Your task to perform on an android device: turn on showing notifications on the lock screen Image 0: 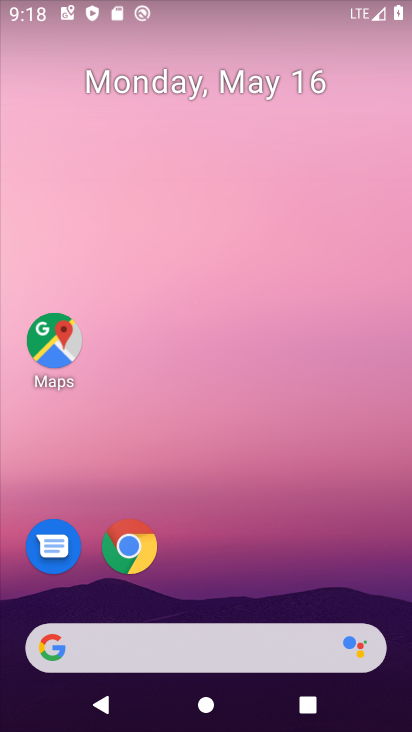
Step 0: drag from (236, 668) to (189, 194)
Your task to perform on an android device: turn on showing notifications on the lock screen Image 1: 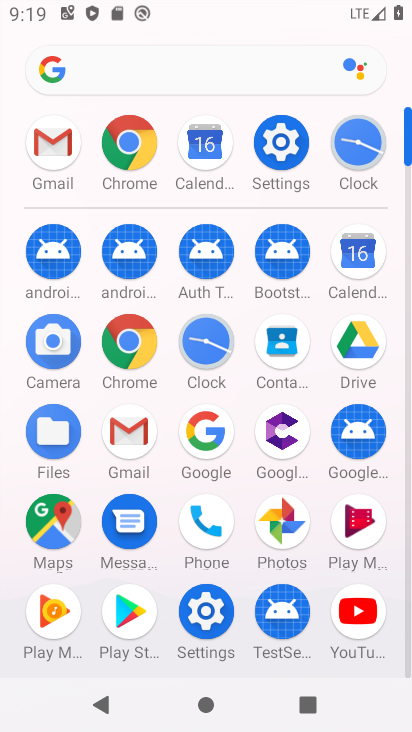
Step 1: click (279, 163)
Your task to perform on an android device: turn on showing notifications on the lock screen Image 2: 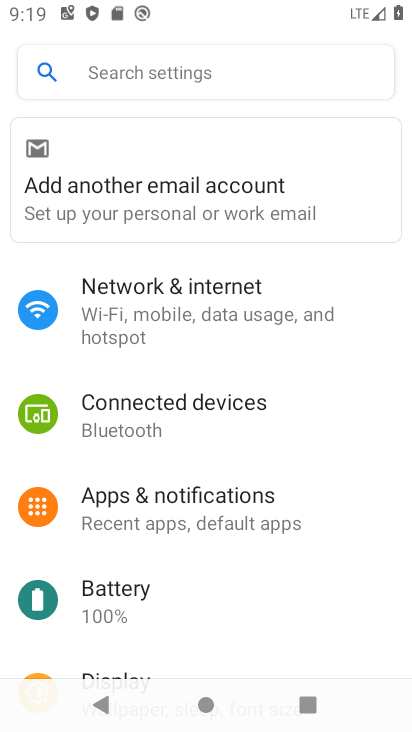
Step 2: click (130, 92)
Your task to perform on an android device: turn on showing notifications on the lock screen Image 3: 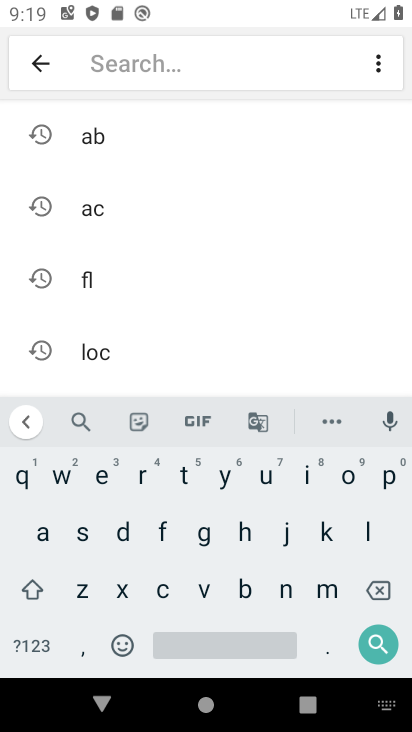
Step 3: click (285, 583)
Your task to perform on an android device: turn on showing notifications on the lock screen Image 4: 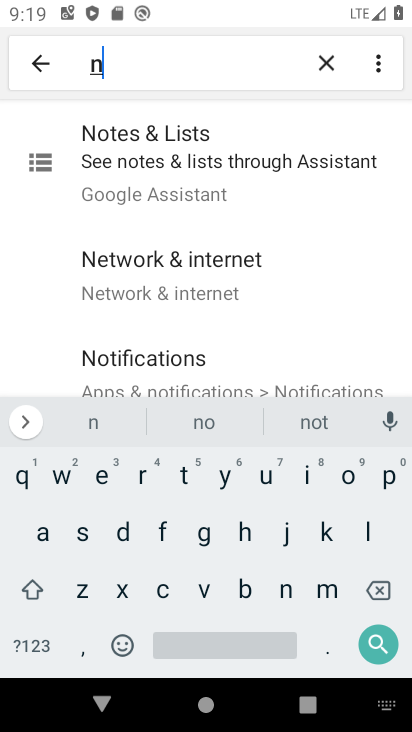
Step 4: click (352, 473)
Your task to perform on an android device: turn on showing notifications on the lock screen Image 5: 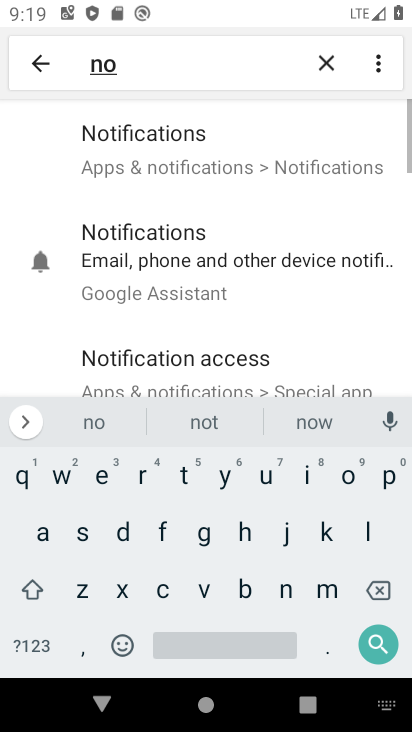
Step 5: click (141, 177)
Your task to perform on an android device: turn on showing notifications on the lock screen Image 6: 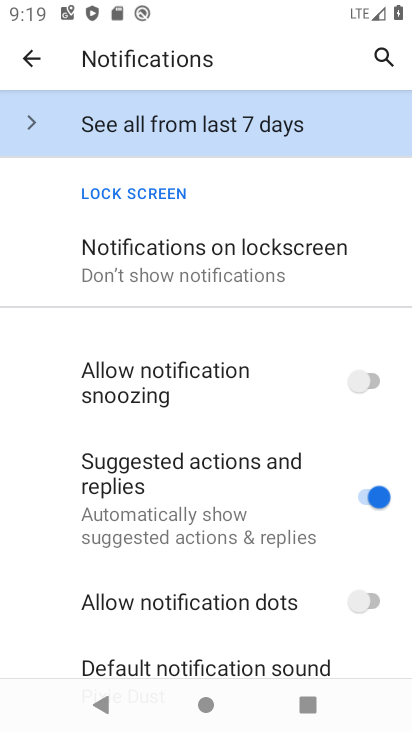
Step 6: task complete